Your task to perform on an android device: Find coffee shops on Maps Image 0: 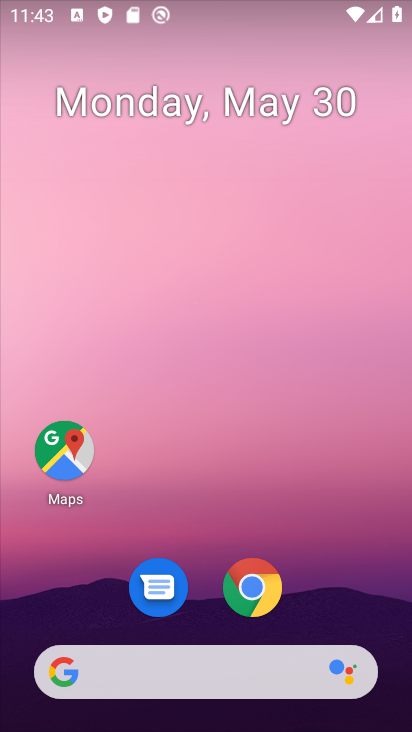
Step 0: click (79, 444)
Your task to perform on an android device: Find coffee shops on Maps Image 1: 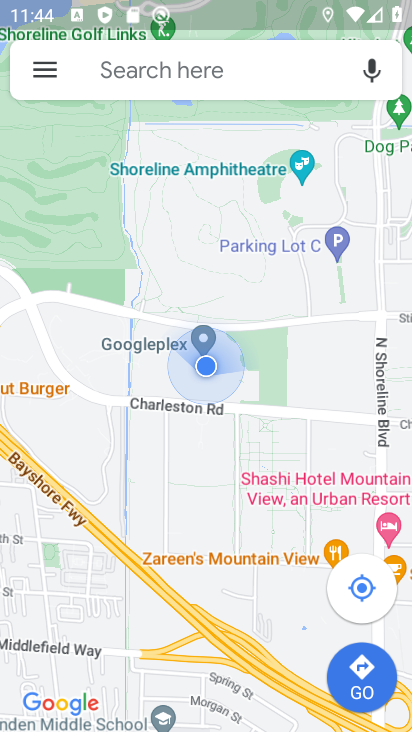
Step 1: click (183, 68)
Your task to perform on an android device: Find coffee shops on Maps Image 2: 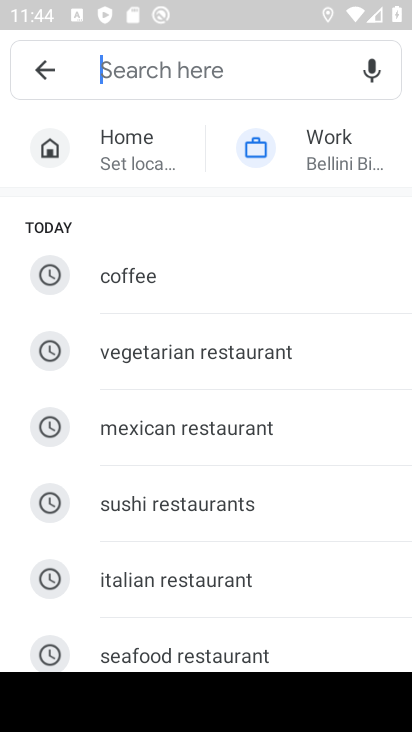
Step 2: type "coffee"
Your task to perform on an android device: Find coffee shops on Maps Image 3: 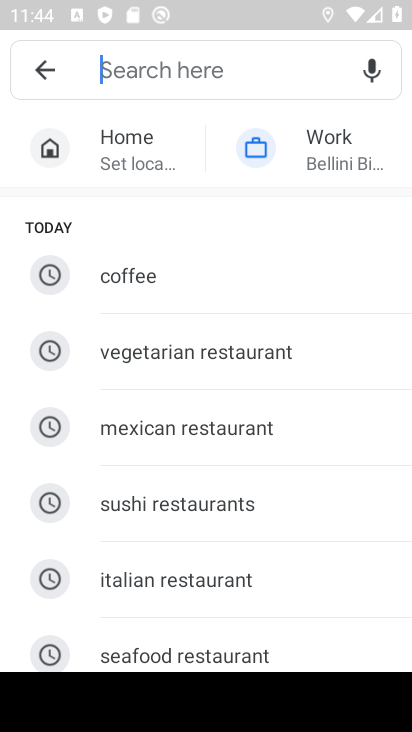
Step 3: click (123, 284)
Your task to perform on an android device: Find coffee shops on Maps Image 4: 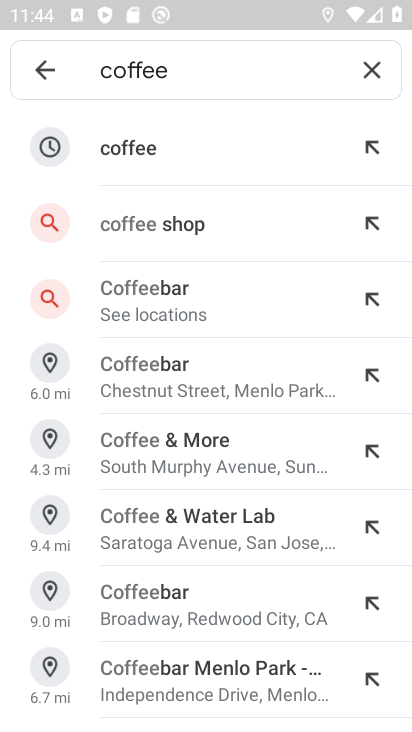
Step 4: click (151, 228)
Your task to perform on an android device: Find coffee shops on Maps Image 5: 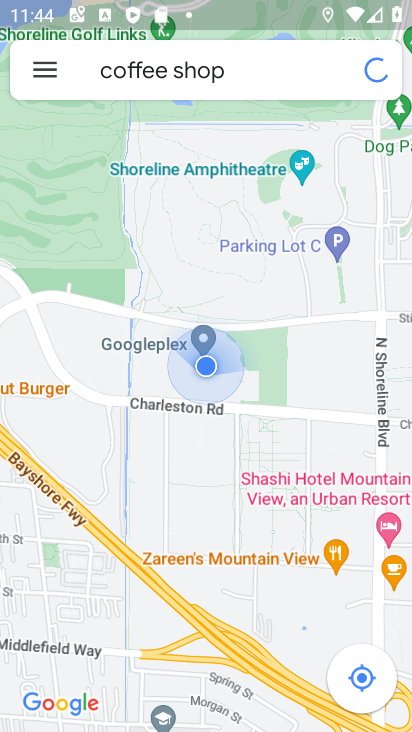
Step 5: task complete